Your task to perform on an android device: install app "DoorDash - Food Delivery" Image 0: 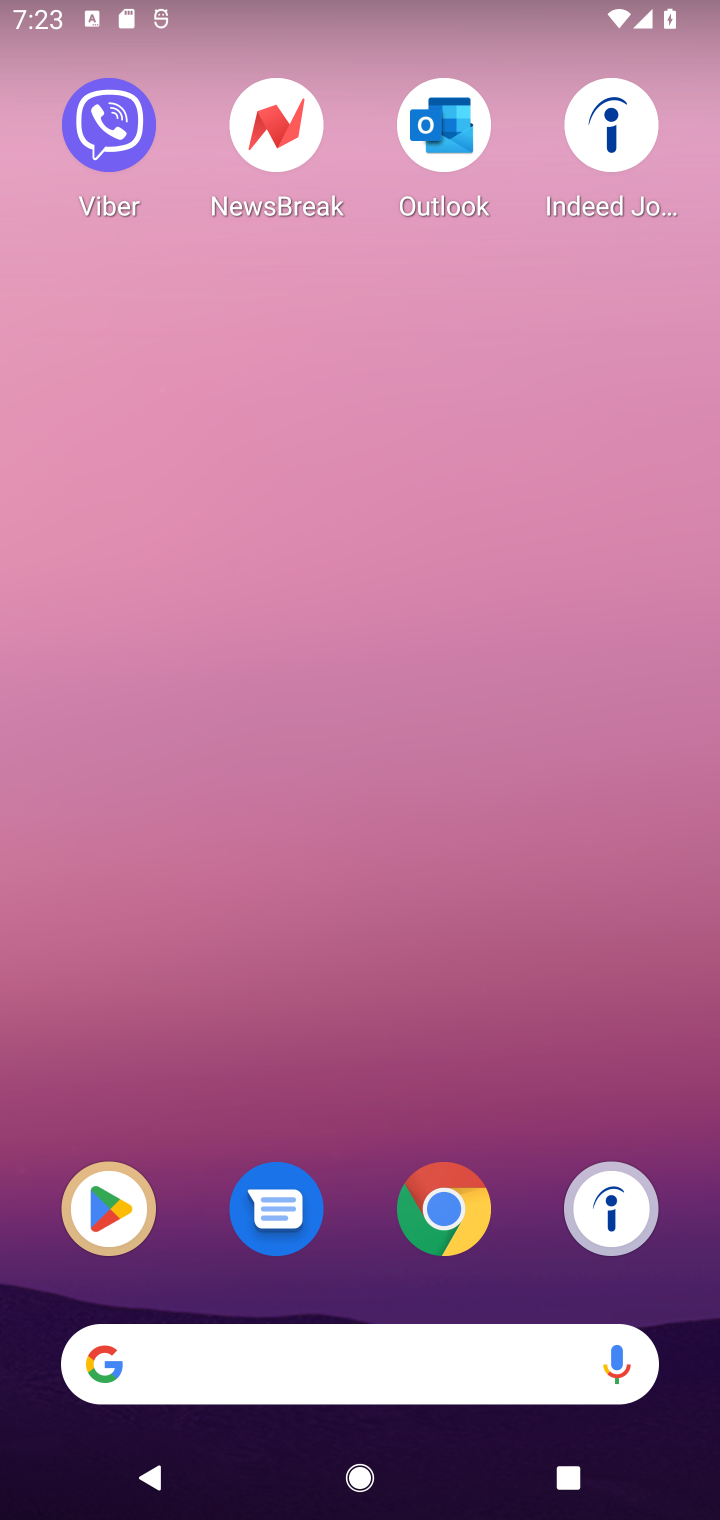
Step 0: click (119, 1212)
Your task to perform on an android device: install app "DoorDash - Food Delivery" Image 1: 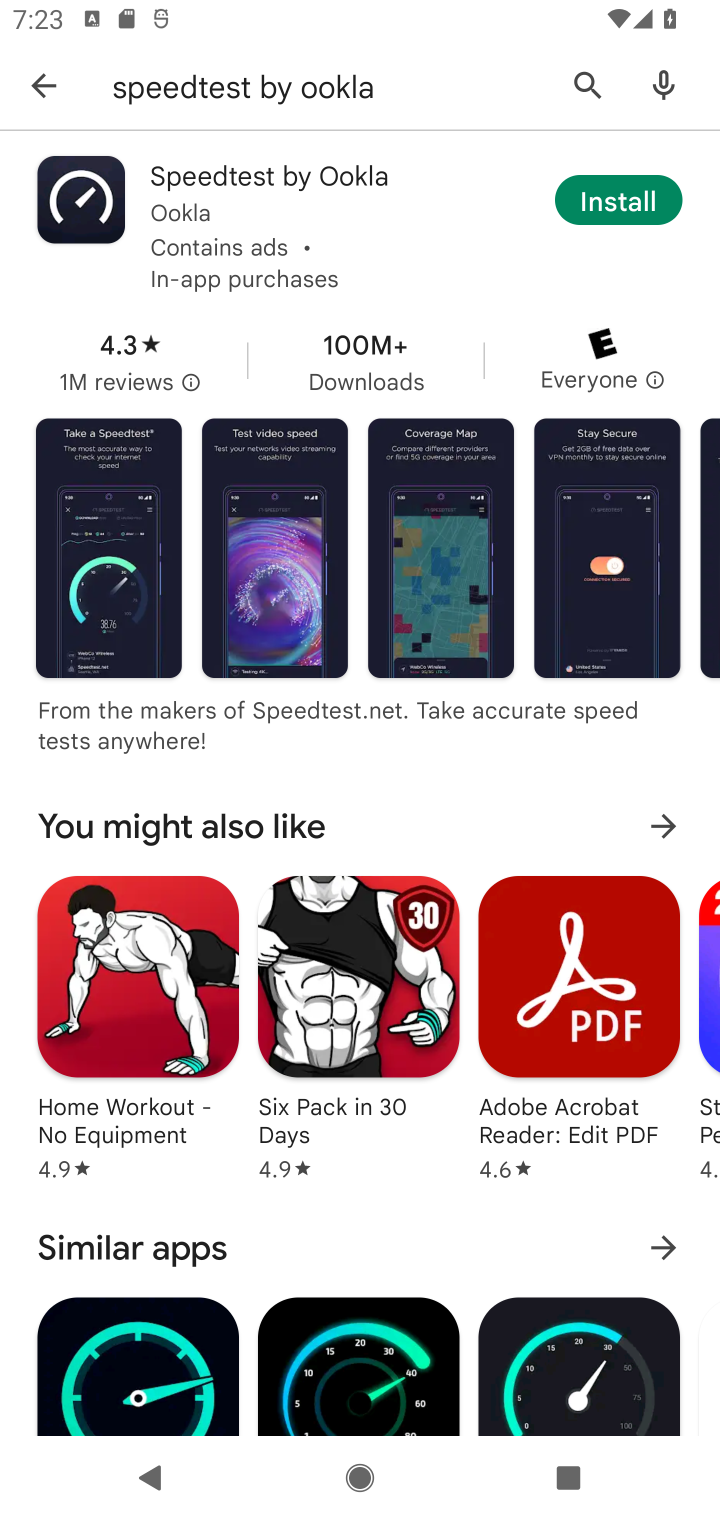
Step 1: click (589, 83)
Your task to perform on an android device: install app "DoorDash - Food Delivery" Image 2: 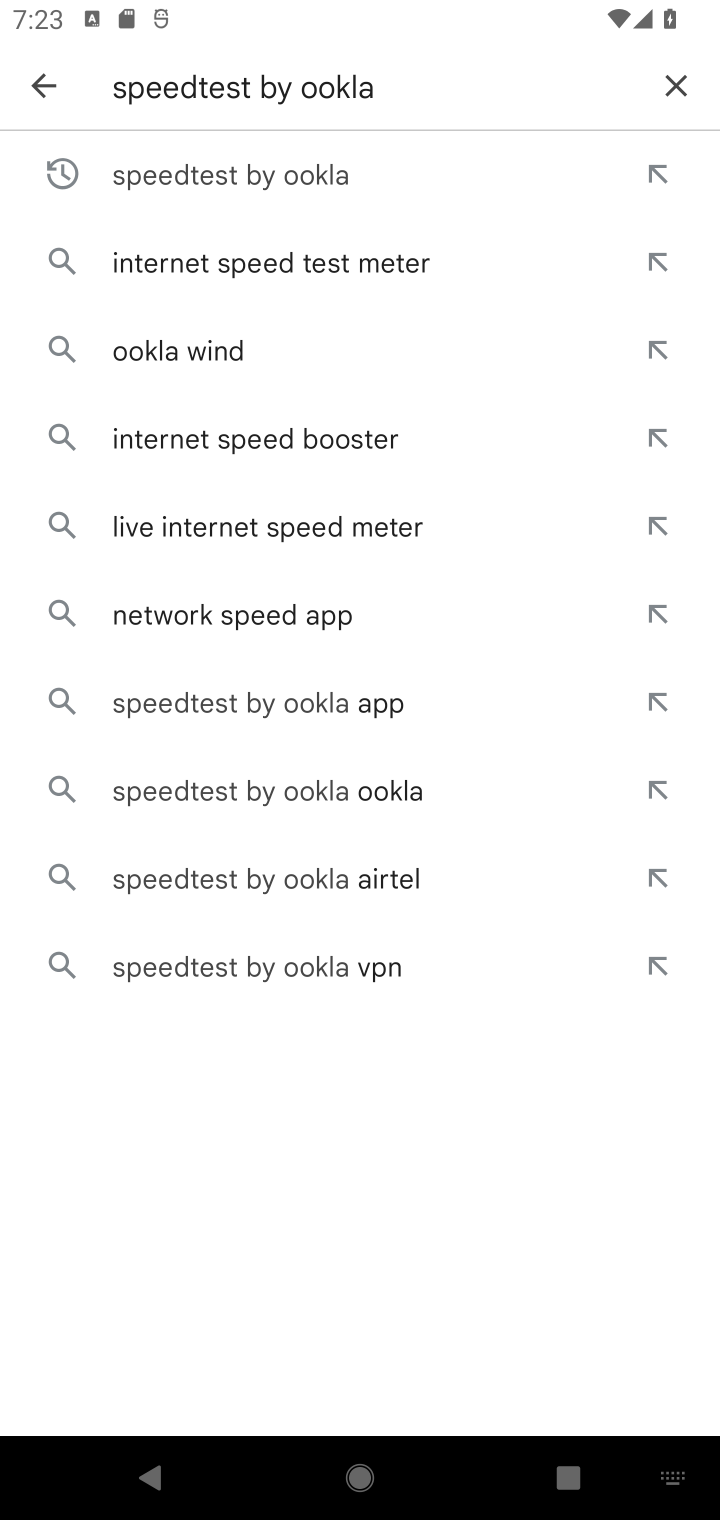
Step 2: click (680, 91)
Your task to perform on an android device: install app "DoorDash - Food Delivery" Image 3: 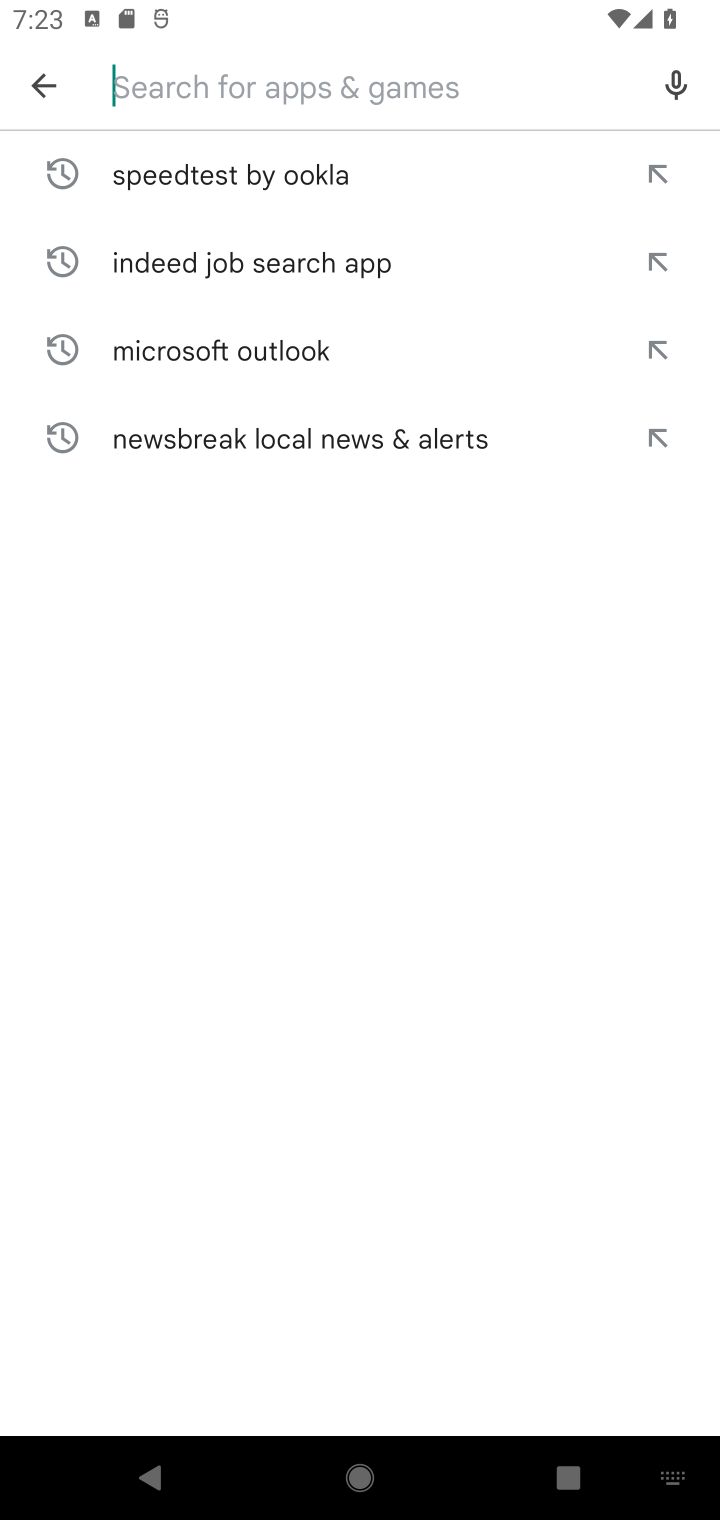
Step 3: type "DoorDash - Food Delivery"
Your task to perform on an android device: install app "DoorDash - Food Delivery" Image 4: 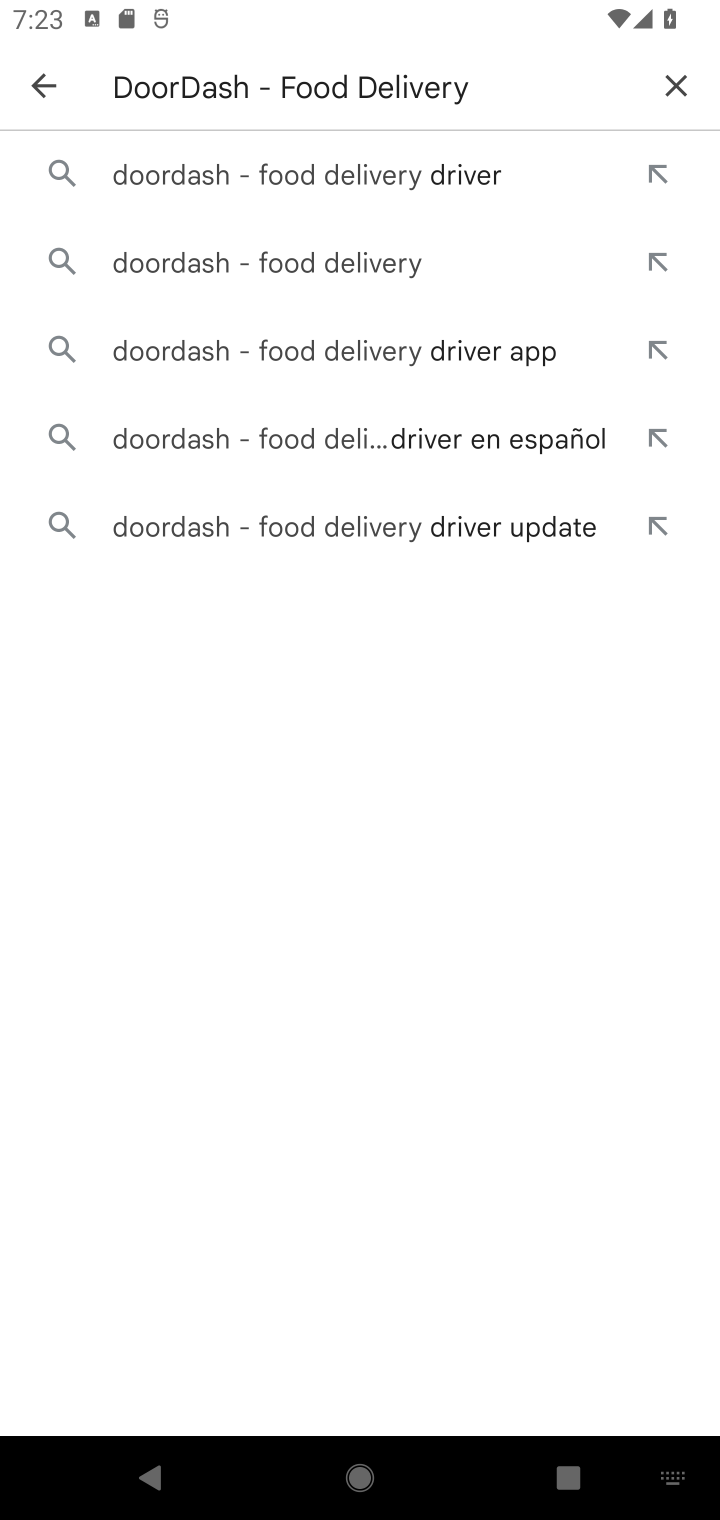
Step 4: click (240, 260)
Your task to perform on an android device: install app "DoorDash - Food Delivery" Image 5: 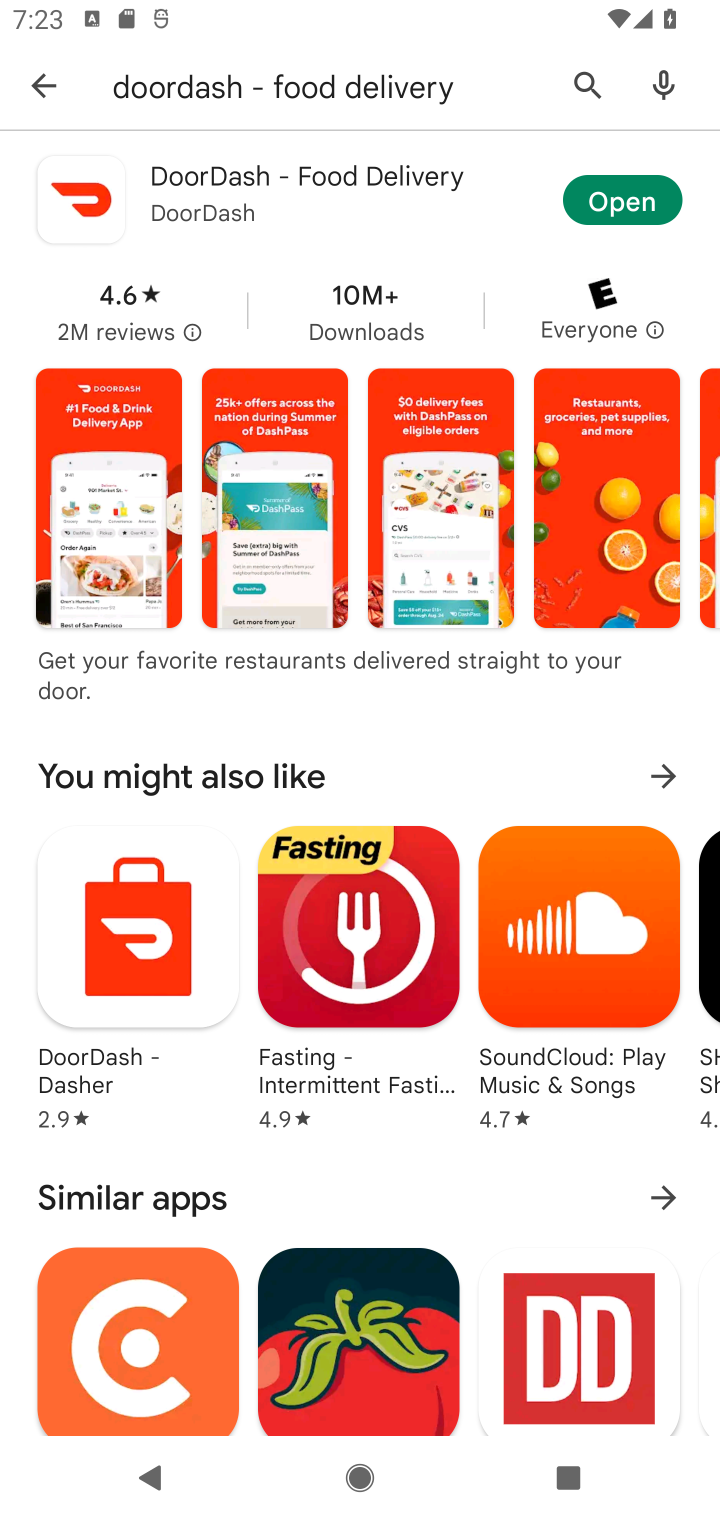
Step 5: task complete